Your task to perform on an android device: change the clock display to show seconds Image 0: 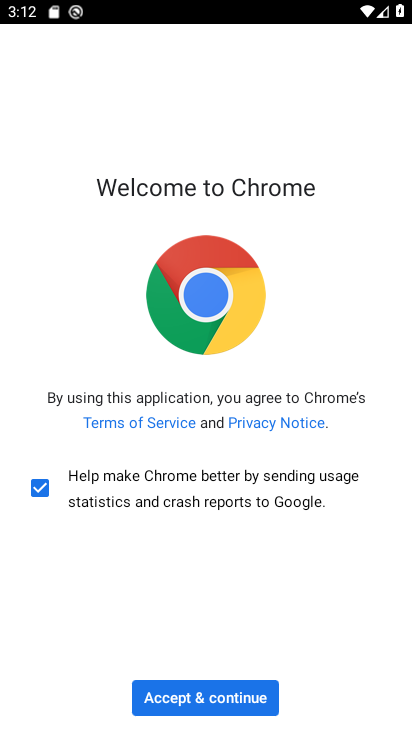
Step 0: click (205, 699)
Your task to perform on an android device: change the clock display to show seconds Image 1: 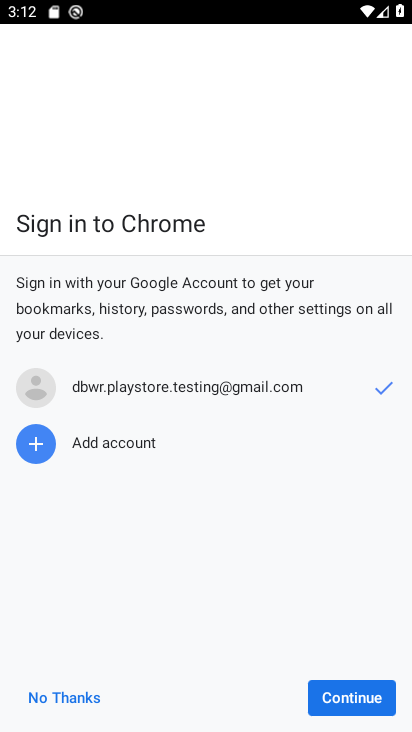
Step 1: press home button
Your task to perform on an android device: change the clock display to show seconds Image 2: 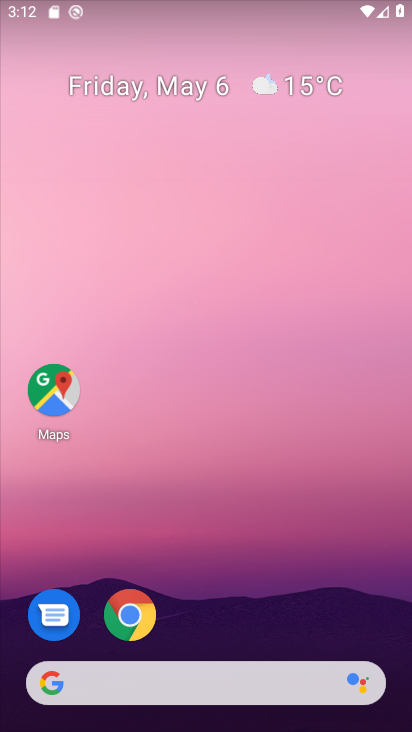
Step 2: drag from (237, 609) to (95, 247)
Your task to perform on an android device: change the clock display to show seconds Image 3: 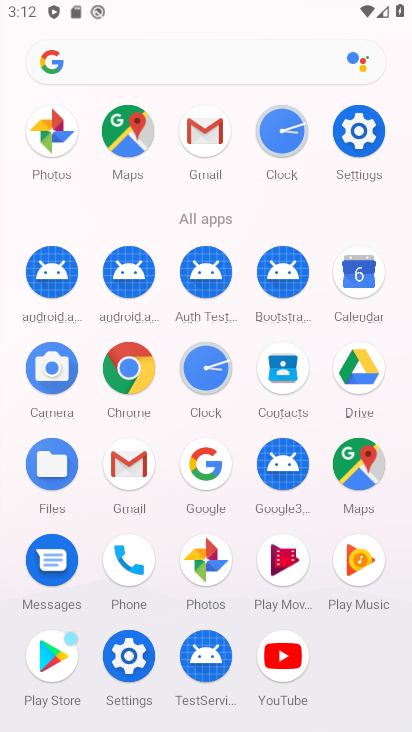
Step 3: click (200, 380)
Your task to perform on an android device: change the clock display to show seconds Image 4: 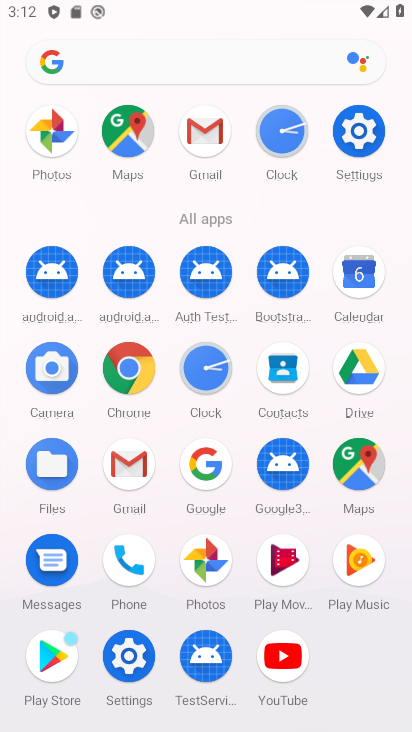
Step 4: click (200, 380)
Your task to perform on an android device: change the clock display to show seconds Image 5: 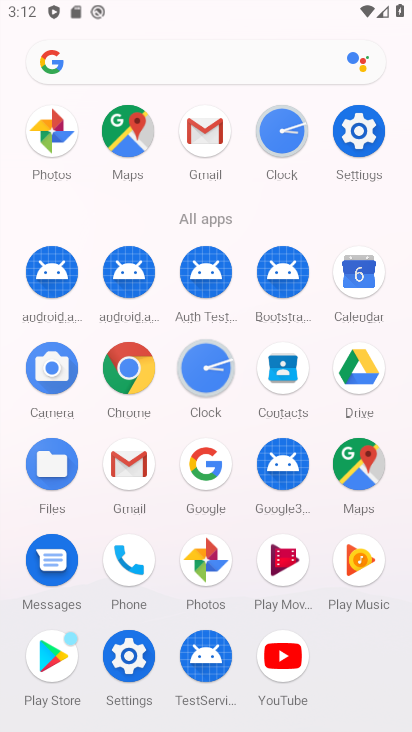
Step 5: click (199, 369)
Your task to perform on an android device: change the clock display to show seconds Image 6: 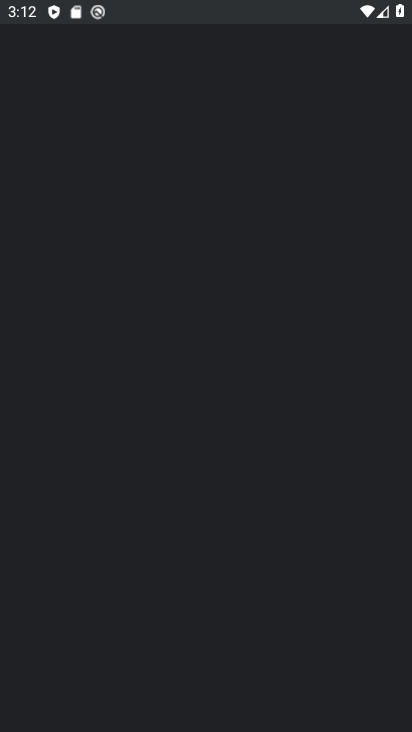
Step 6: click (200, 368)
Your task to perform on an android device: change the clock display to show seconds Image 7: 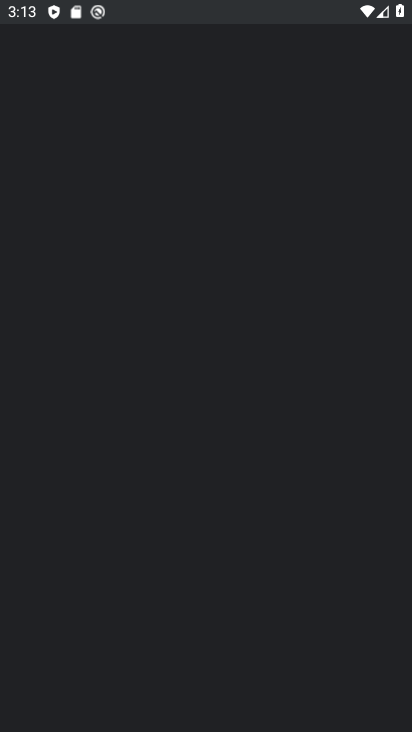
Step 7: click (201, 369)
Your task to perform on an android device: change the clock display to show seconds Image 8: 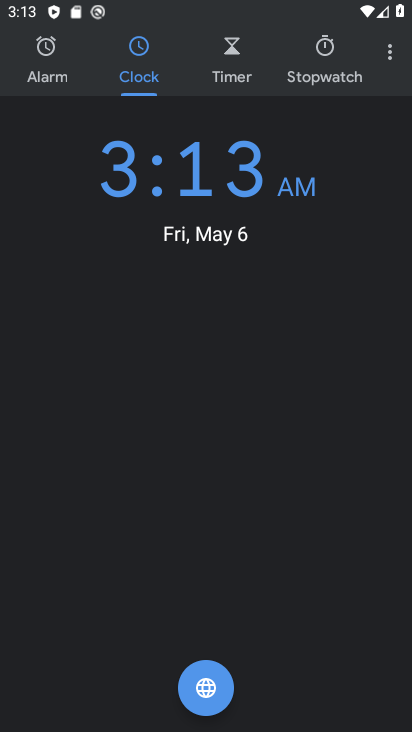
Step 8: click (398, 58)
Your task to perform on an android device: change the clock display to show seconds Image 9: 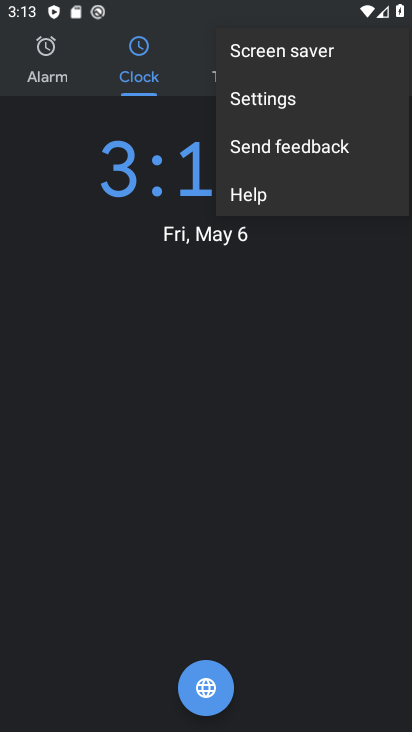
Step 9: click (388, 61)
Your task to perform on an android device: change the clock display to show seconds Image 10: 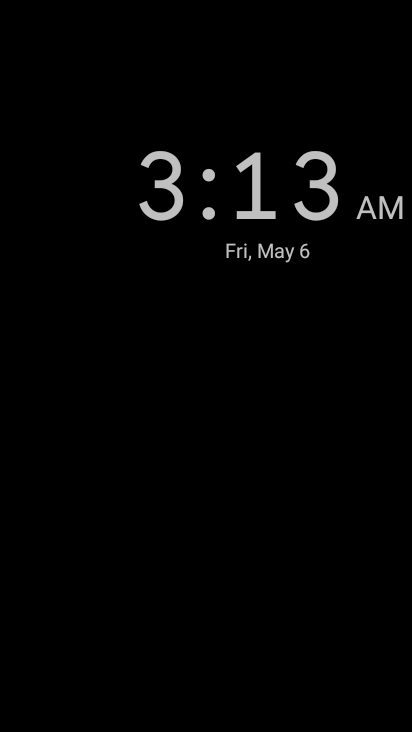
Step 10: press home button
Your task to perform on an android device: change the clock display to show seconds Image 11: 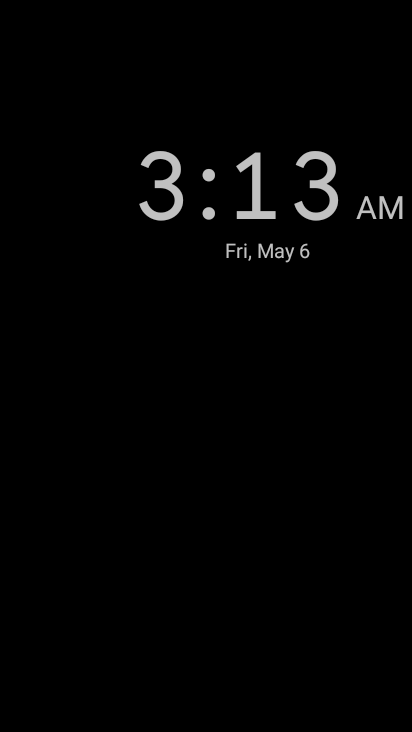
Step 11: press home button
Your task to perform on an android device: change the clock display to show seconds Image 12: 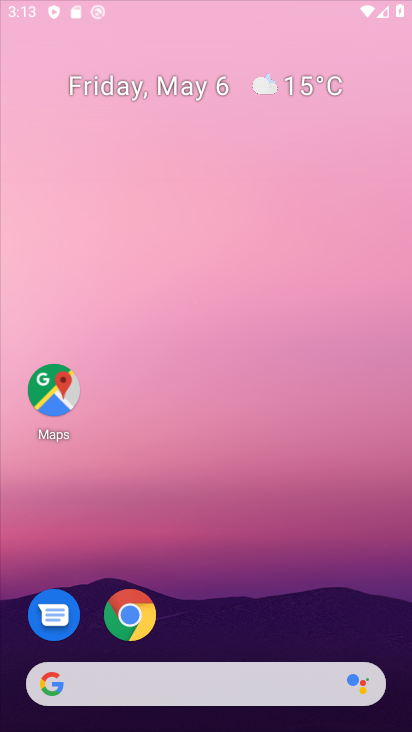
Step 12: press home button
Your task to perform on an android device: change the clock display to show seconds Image 13: 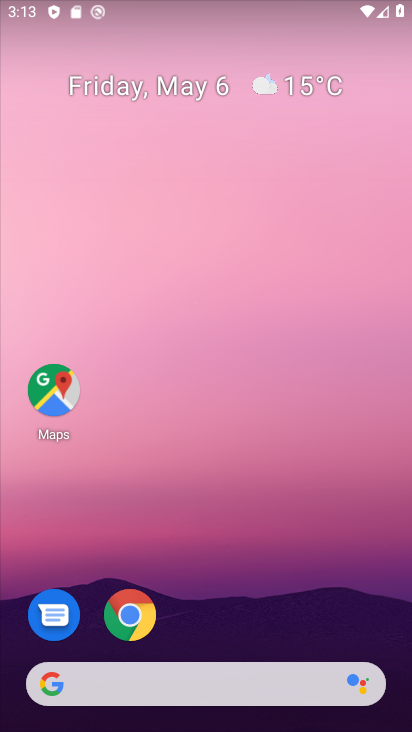
Step 13: press home button
Your task to perform on an android device: change the clock display to show seconds Image 14: 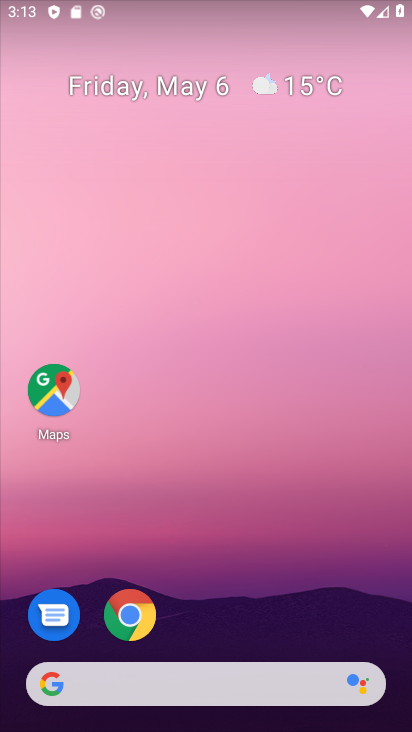
Step 14: drag from (232, 636) to (121, 134)
Your task to perform on an android device: change the clock display to show seconds Image 15: 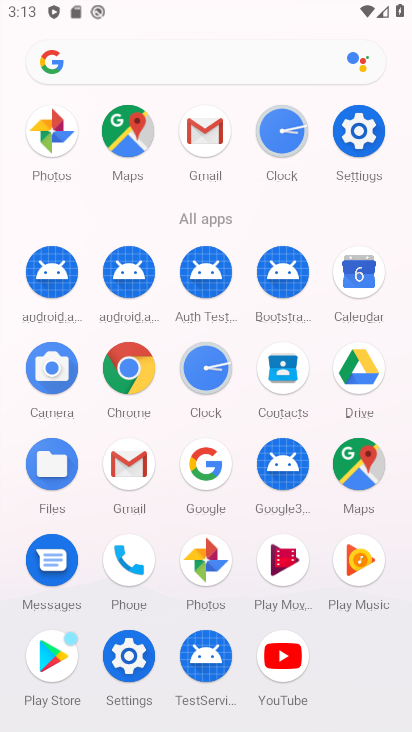
Step 15: click (201, 370)
Your task to perform on an android device: change the clock display to show seconds Image 16: 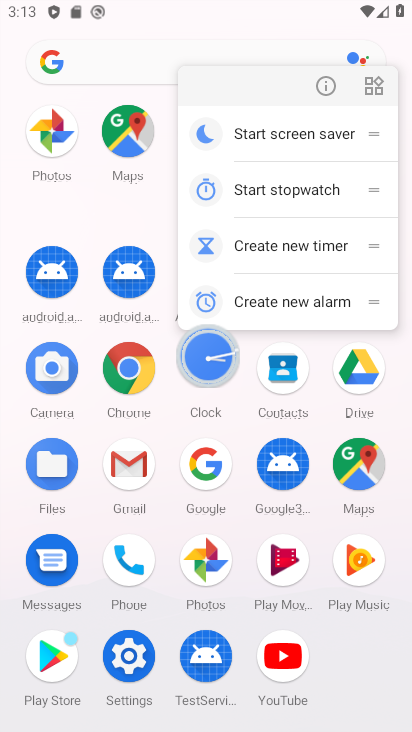
Step 16: click (202, 358)
Your task to perform on an android device: change the clock display to show seconds Image 17: 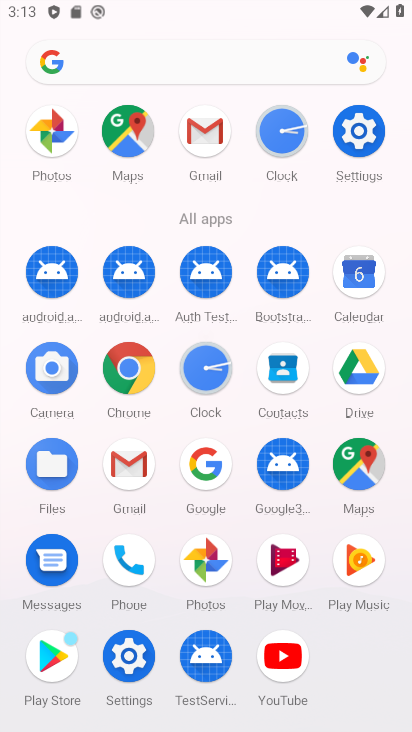
Step 17: click (207, 358)
Your task to perform on an android device: change the clock display to show seconds Image 18: 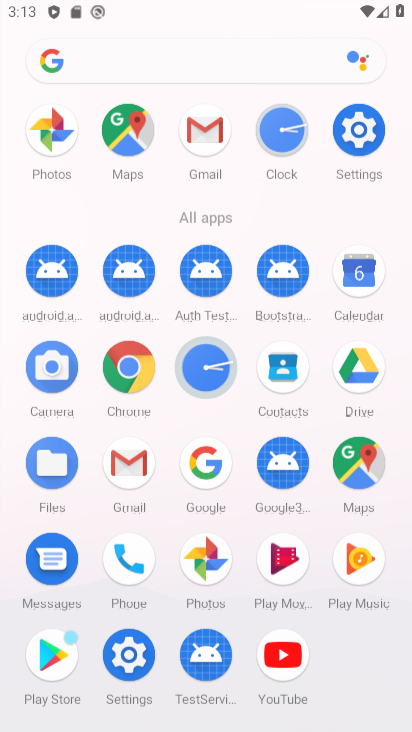
Step 18: click (203, 362)
Your task to perform on an android device: change the clock display to show seconds Image 19: 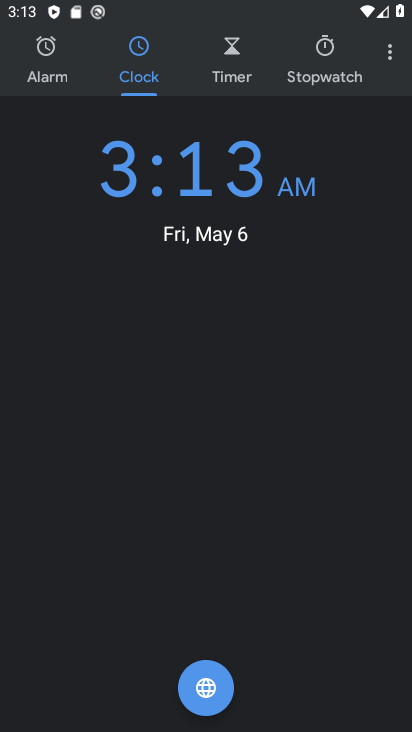
Step 19: click (388, 44)
Your task to perform on an android device: change the clock display to show seconds Image 20: 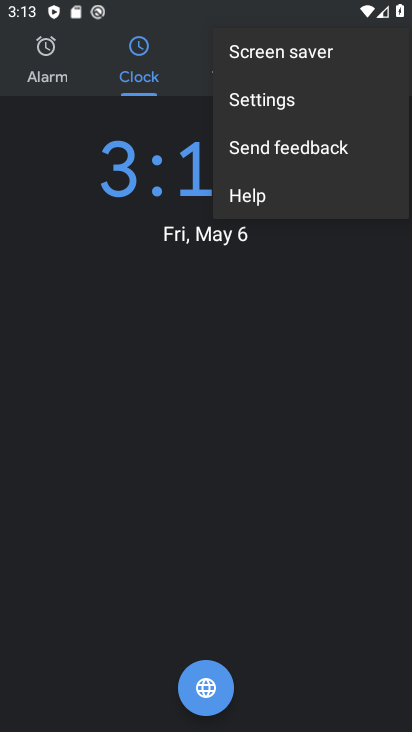
Step 20: click (388, 44)
Your task to perform on an android device: change the clock display to show seconds Image 21: 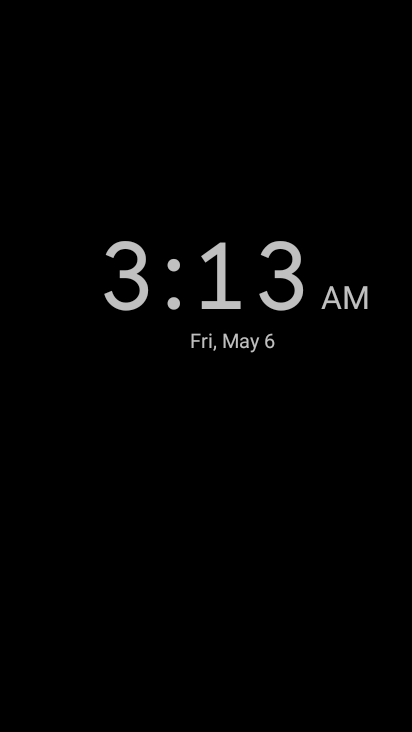
Step 21: press back button
Your task to perform on an android device: change the clock display to show seconds Image 22: 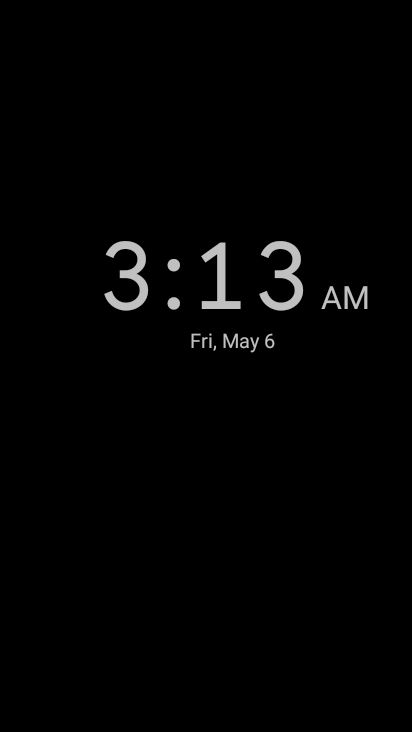
Step 22: press back button
Your task to perform on an android device: change the clock display to show seconds Image 23: 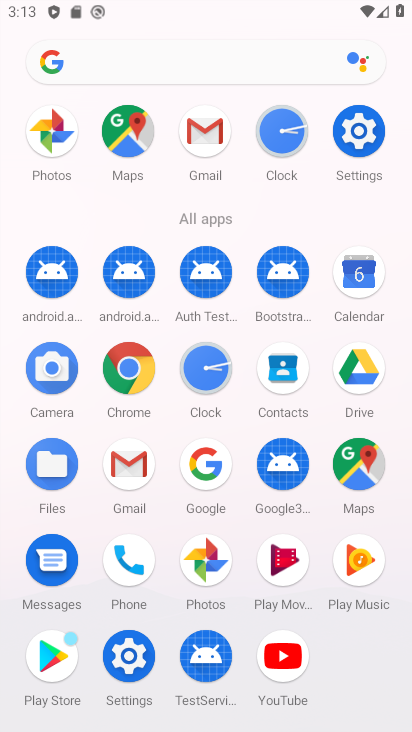
Step 23: click (199, 368)
Your task to perform on an android device: change the clock display to show seconds Image 24: 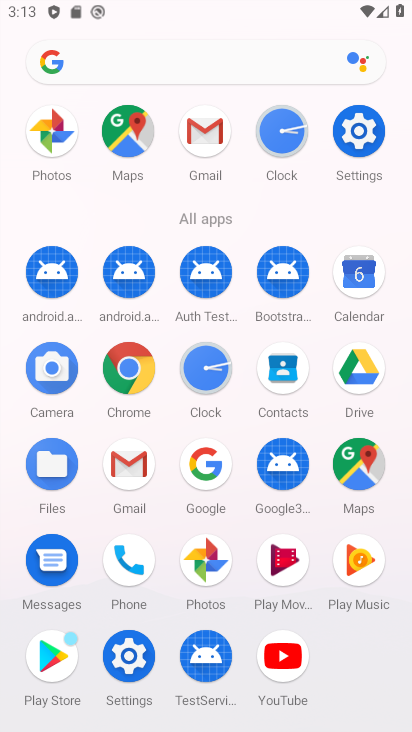
Step 24: click (199, 368)
Your task to perform on an android device: change the clock display to show seconds Image 25: 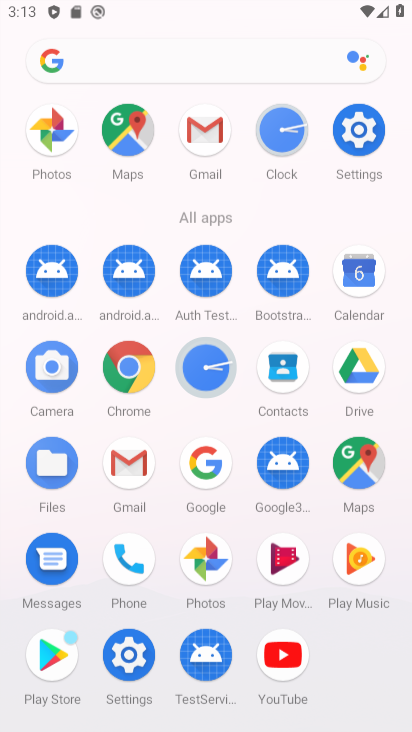
Step 25: click (199, 368)
Your task to perform on an android device: change the clock display to show seconds Image 26: 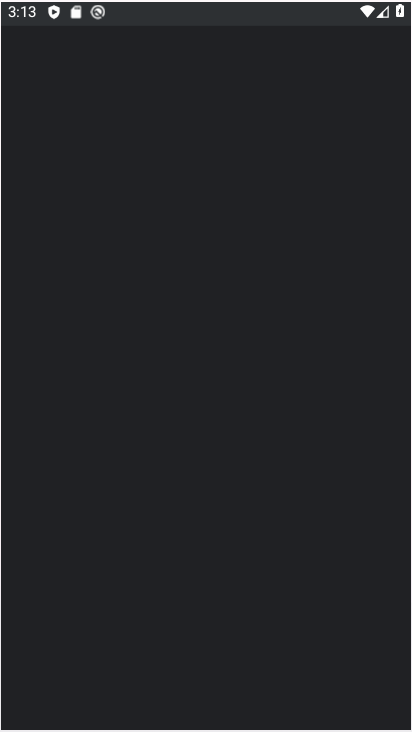
Step 26: click (199, 368)
Your task to perform on an android device: change the clock display to show seconds Image 27: 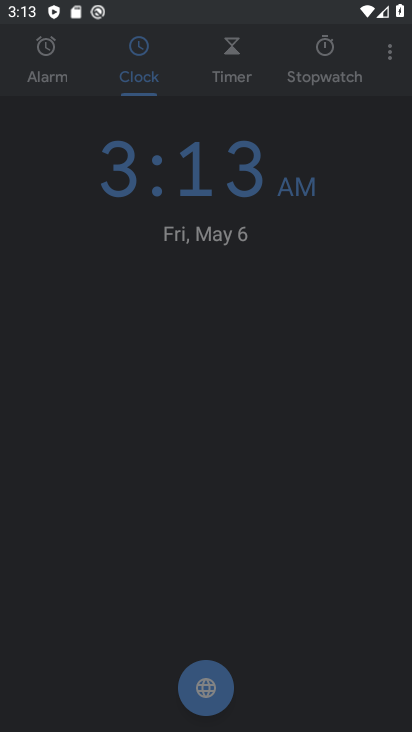
Step 27: click (199, 368)
Your task to perform on an android device: change the clock display to show seconds Image 28: 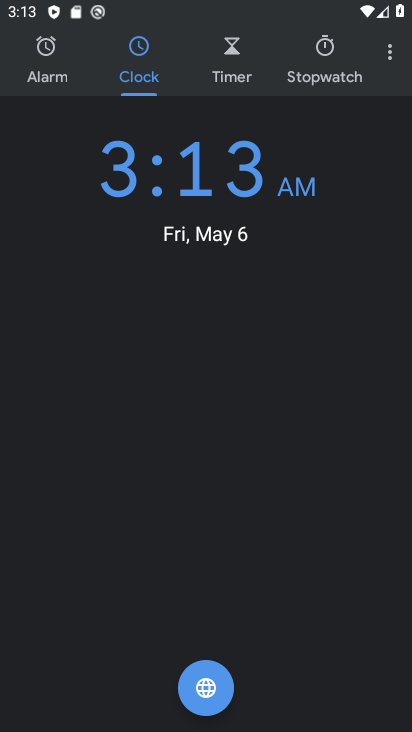
Step 28: click (202, 370)
Your task to perform on an android device: change the clock display to show seconds Image 29: 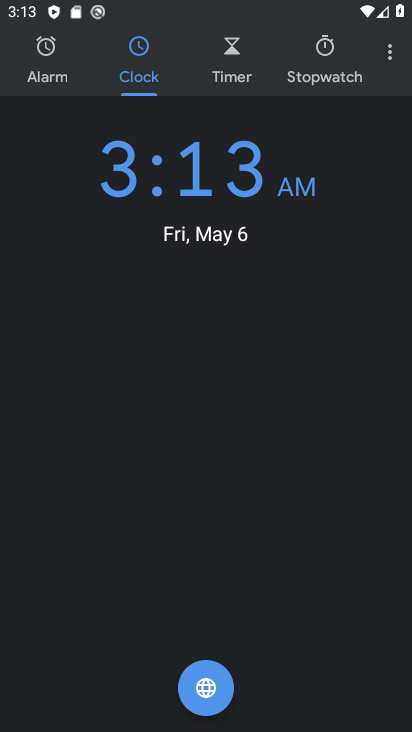
Step 29: click (382, 49)
Your task to perform on an android device: change the clock display to show seconds Image 30: 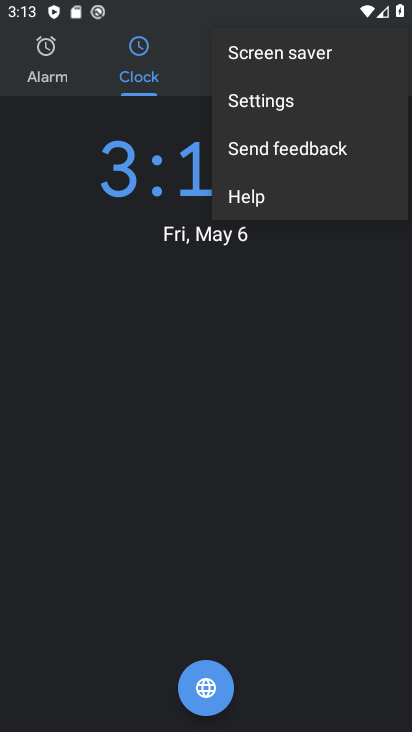
Step 30: click (384, 50)
Your task to perform on an android device: change the clock display to show seconds Image 31: 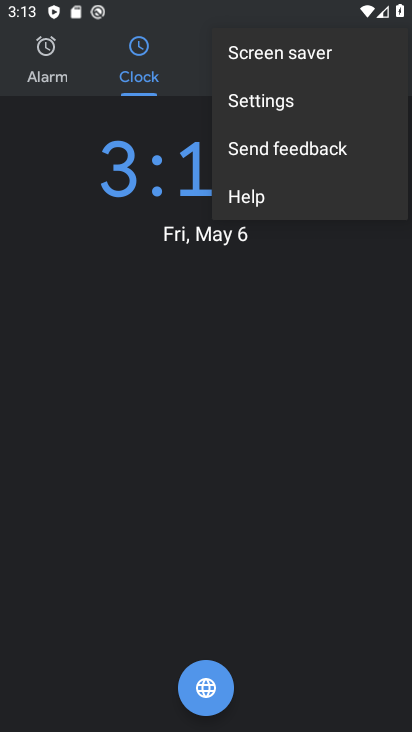
Step 31: click (384, 50)
Your task to perform on an android device: change the clock display to show seconds Image 32: 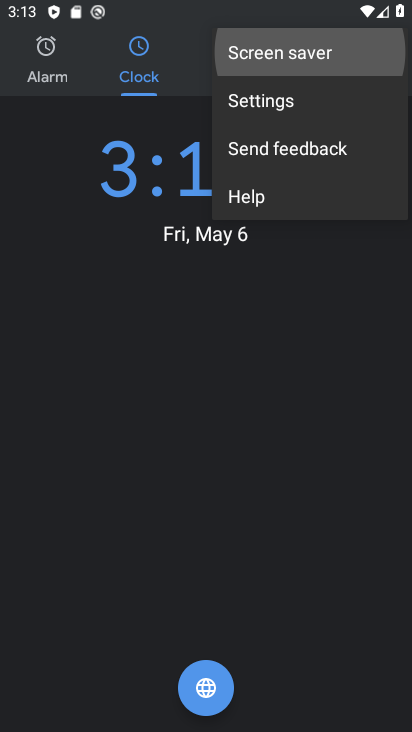
Step 32: click (385, 51)
Your task to perform on an android device: change the clock display to show seconds Image 33: 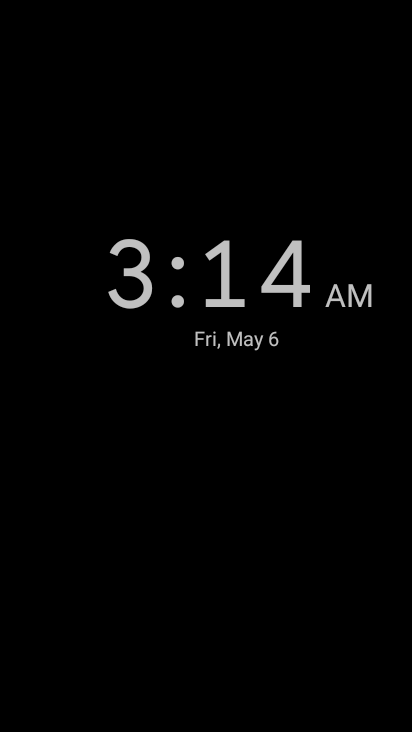
Step 33: press back button
Your task to perform on an android device: change the clock display to show seconds Image 34: 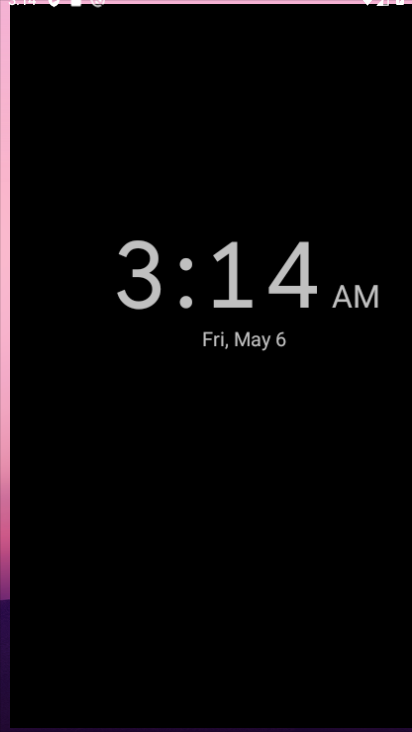
Step 34: press back button
Your task to perform on an android device: change the clock display to show seconds Image 35: 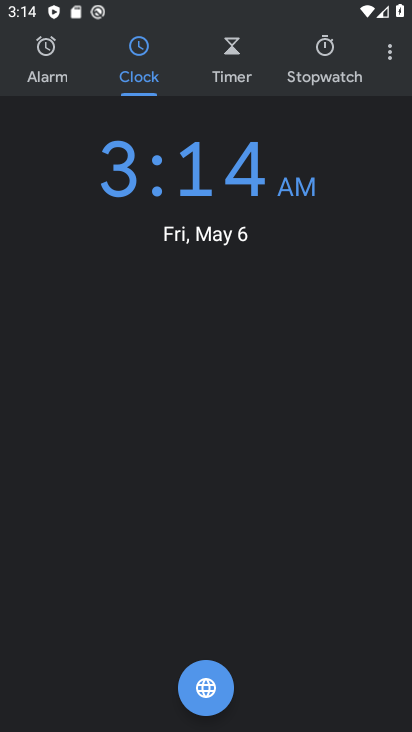
Step 35: press back button
Your task to perform on an android device: change the clock display to show seconds Image 36: 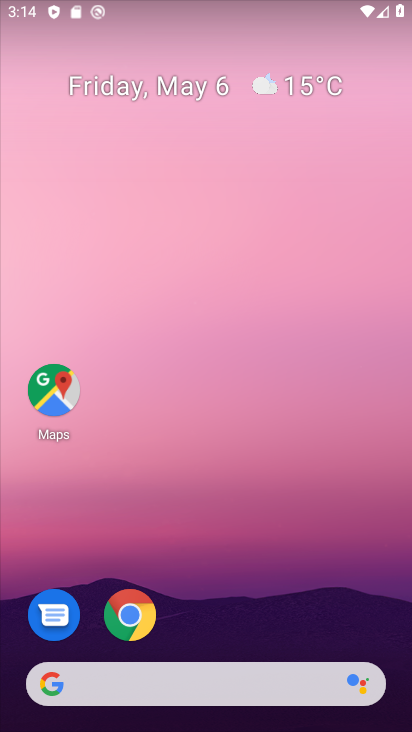
Step 36: drag from (295, 634) to (125, 121)
Your task to perform on an android device: change the clock display to show seconds Image 37: 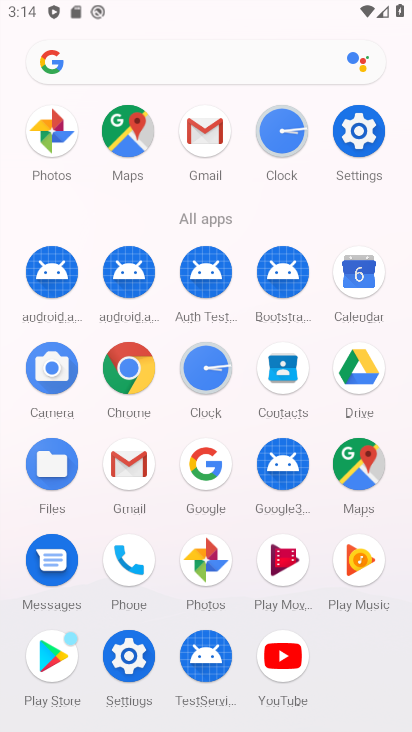
Step 37: click (279, 134)
Your task to perform on an android device: change the clock display to show seconds Image 38: 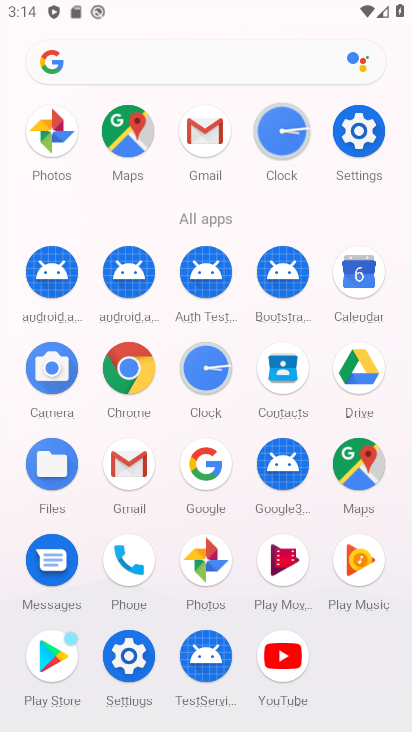
Step 38: click (280, 133)
Your task to perform on an android device: change the clock display to show seconds Image 39: 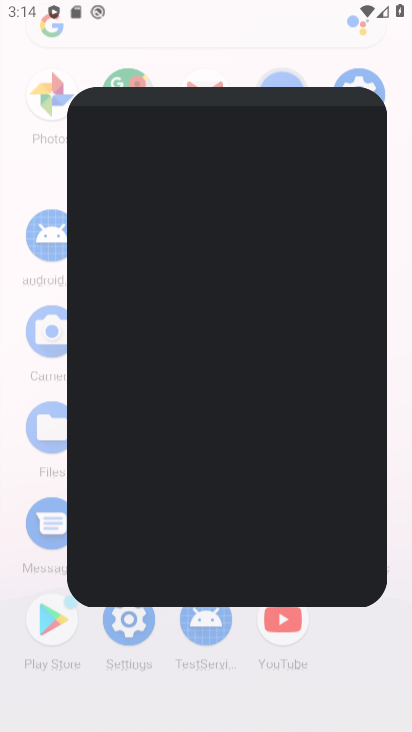
Step 39: click (281, 132)
Your task to perform on an android device: change the clock display to show seconds Image 40: 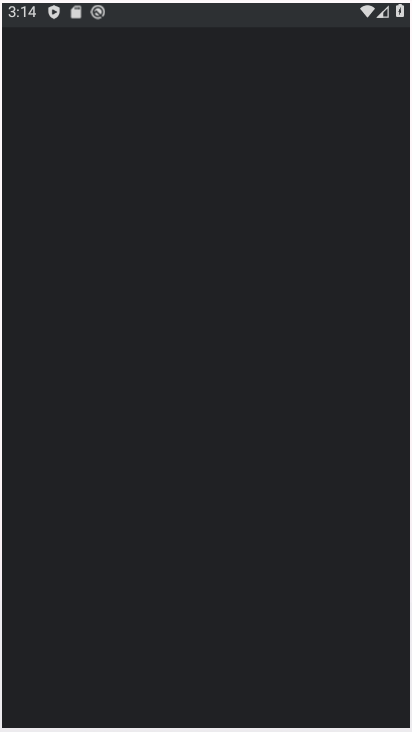
Step 40: click (281, 132)
Your task to perform on an android device: change the clock display to show seconds Image 41: 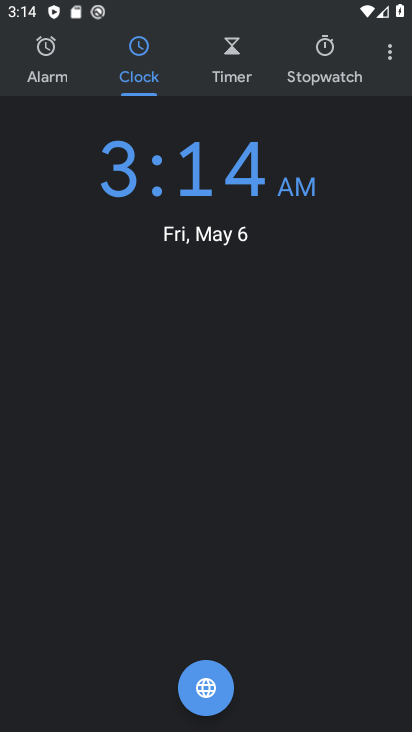
Step 41: click (281, 132)
Your task to perform on an android device: change the clock display to show seconds Image 42: 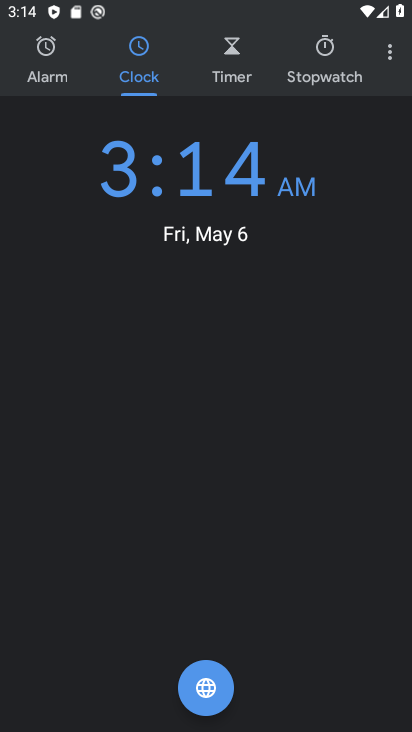
Step 42: click (391, 58)
Your task to perform on an android device: change the clock display to show seconds Image 43: 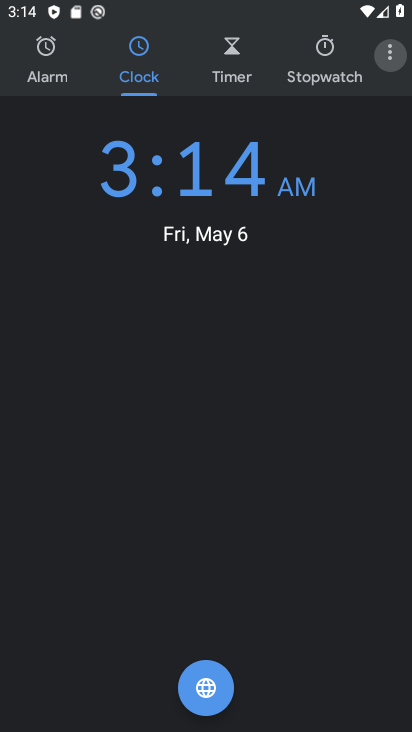
Step 43: click (391, 59)
Your task to perform on an android device: change the clock display to show seconds Image 44: 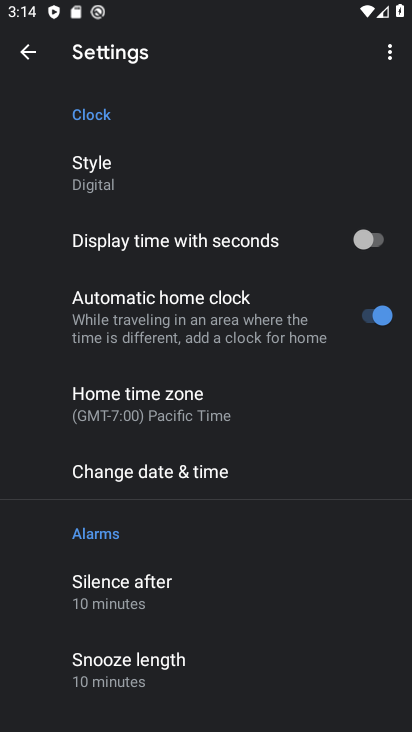
Step 44: click (361, 239)
Your task to perform on an android device: change the clock display to show seconds Image 45: 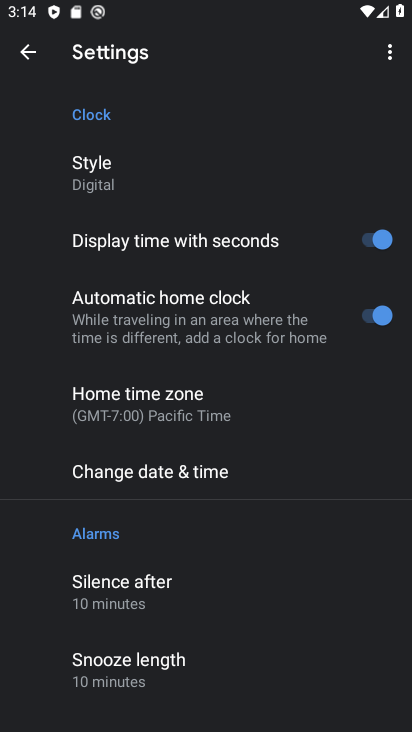
Step 45: task complete